Your task to perform on an android device: Search for pizza restaurants on Maps Image 0: 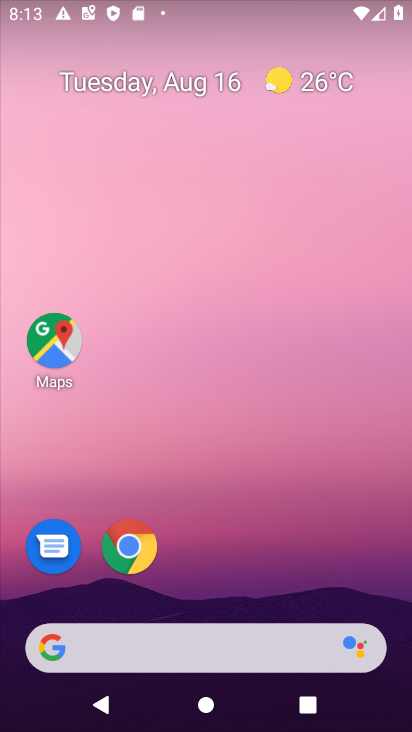
Step 0: click (56, 347)
Your task to perform on an android device: Search for pizza restaurants on Maps Image 1: 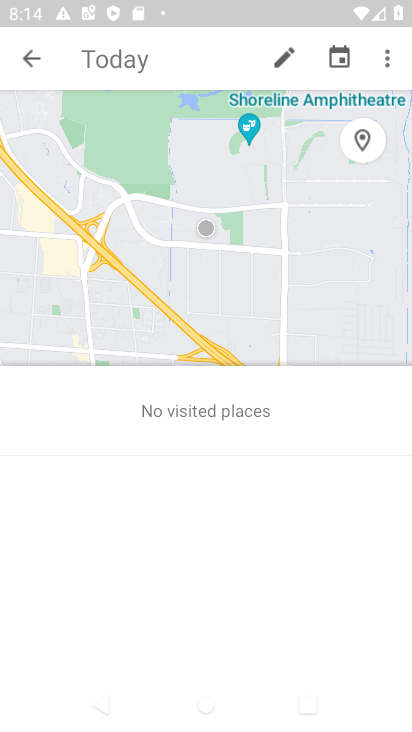
Step 1: click (32, 56)
Your task to perform on an android device: Search for pizza restaurants on Maps Image 2: 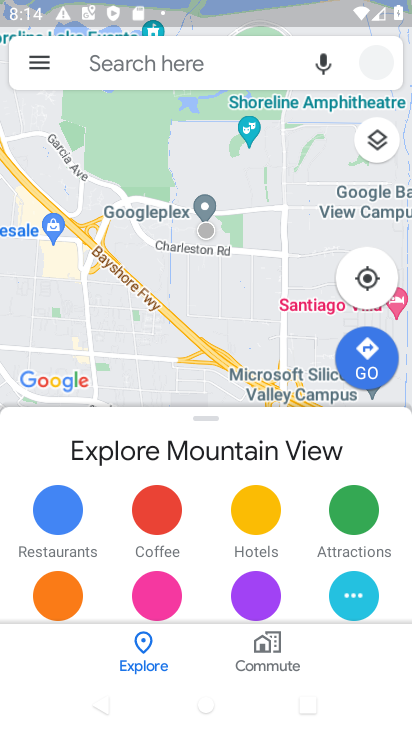
Step 2: click (138, 58)
Your task to perform on an android device: Search for pizza restaurants on Maps Image 3: 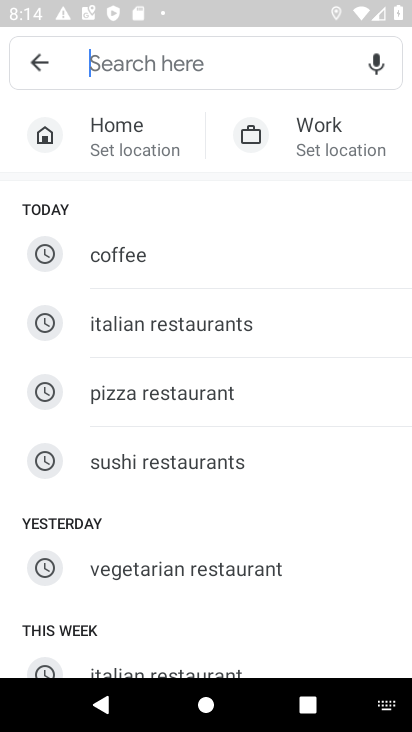
Step 3: click (200, 390)
Your task to perform on an android device: Search for pizza restaurants on Maps Image 4: 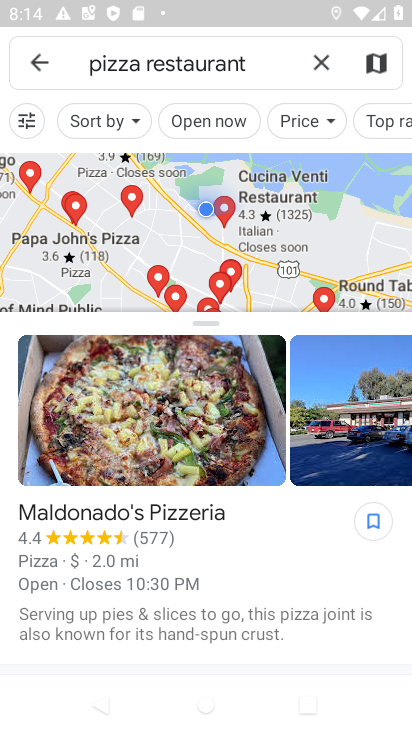
Step 4: task complete